Your task to perform on an android device: What's the weather going to be tomorrow? Image 0: 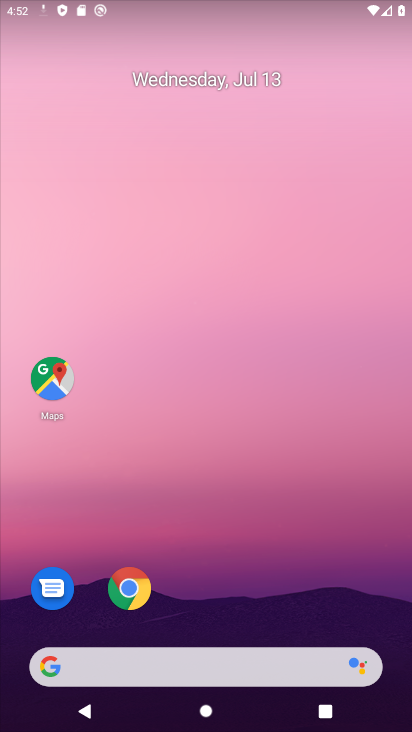
Step 0: press home button
Your task to perform on an android device: What's the weather going to be tomorrow? Image 1: 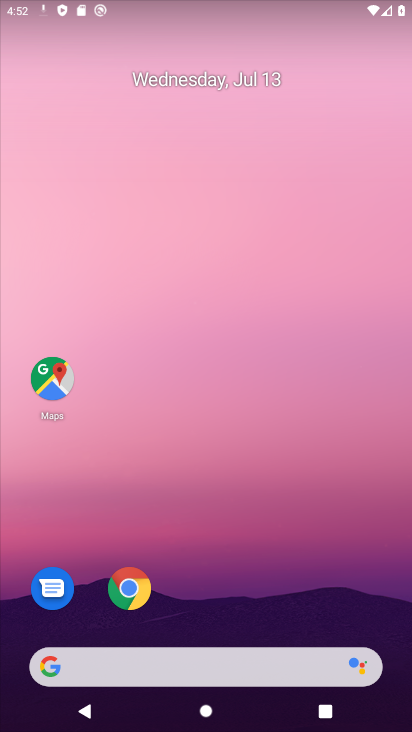
Step 1: click (129, 597)
Your task to perform on an android device: What's the weather going to be tomorrow? Image 2: 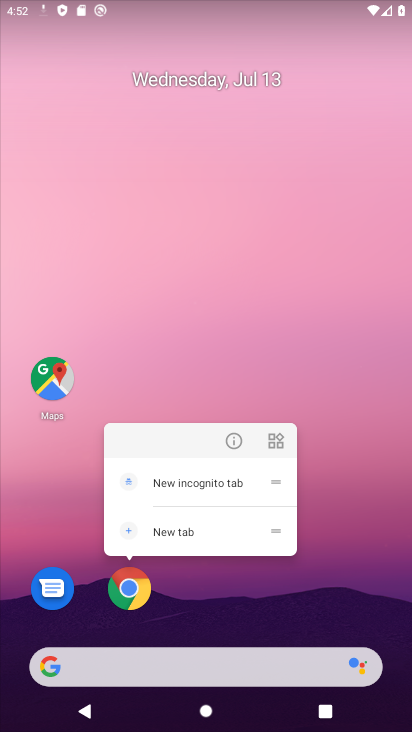
Step 2: click (137, 590)
Your task to perform on an android device: What's the weather going to be tomorrow? Image 3: 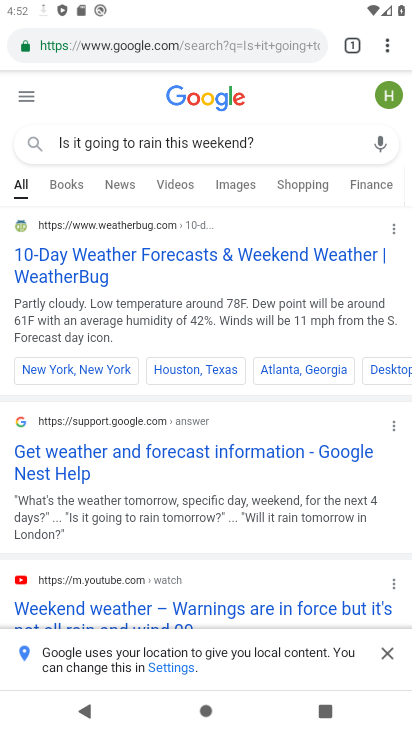
Step 3: click (162, 44)
Your task to perform on an android device: What's the weather going to be tomorrow? Image 4: 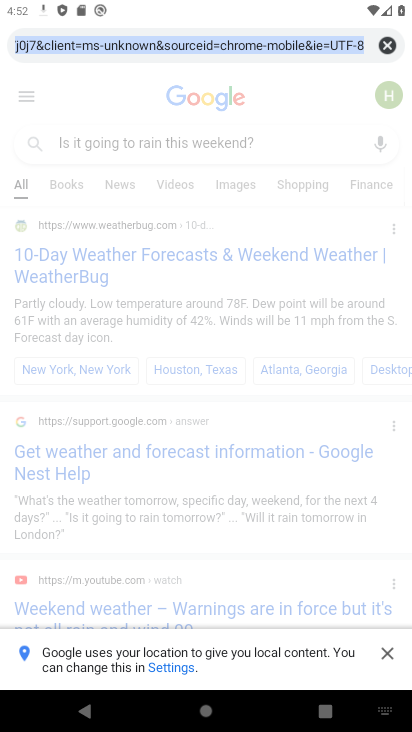
Step 4: type " What's the weather going to be tomorrow?"
Your task to perform on an android device: What's the weather going to be tomorrow? Image 5: 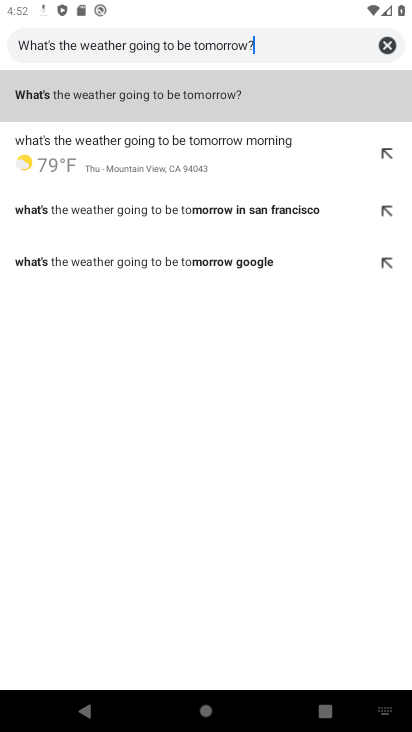
Step 5: type ""
Your task to perform on an android device: What's the weather going to be tomorrow? Image 6: 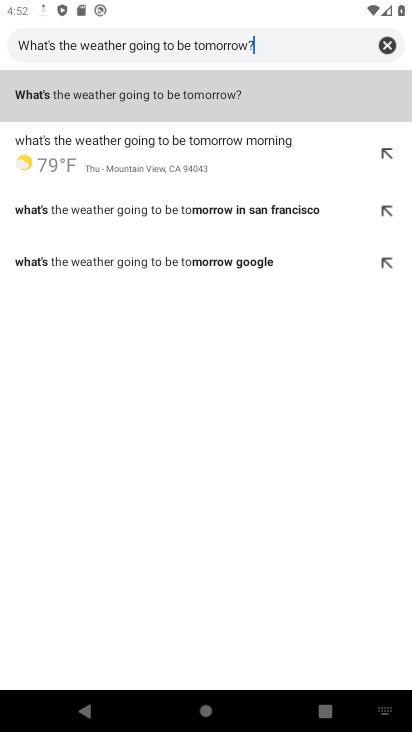
Step 6: click (107, 92)
Your task to perform on an android device: What's the weather going to be tomorrow? Image 7: 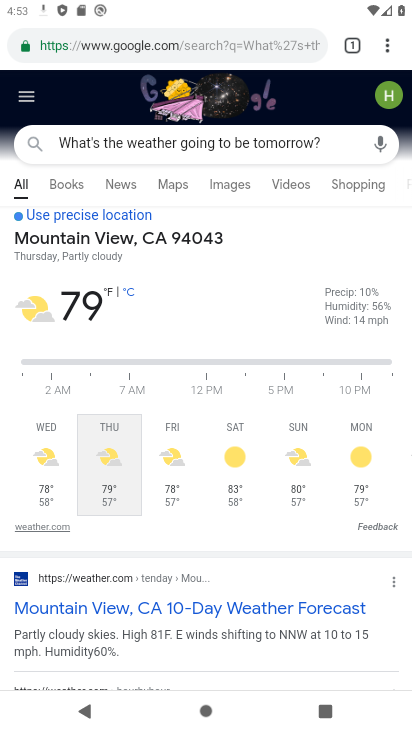
Step 7: task complete